Your task to perform on an android device: turn on improve location accuracy Image 0: 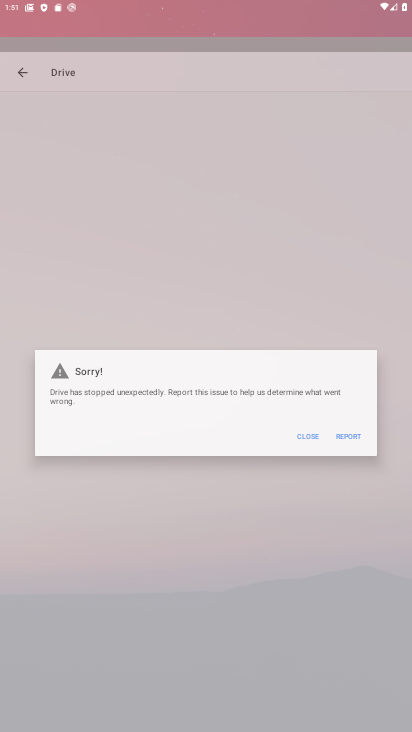
Step 0: click (212, 67)
Your task to perform on an android device: turn on improve location accuracy Image 1: 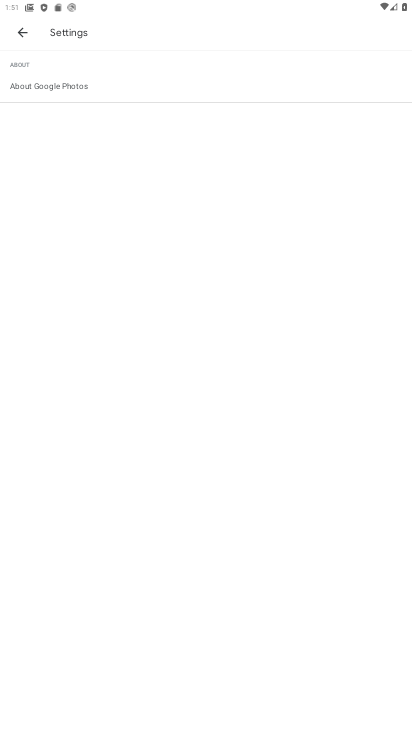
Step 1: press home button
Your task to perform on an android device: turn on improve location accuracy Image 2: 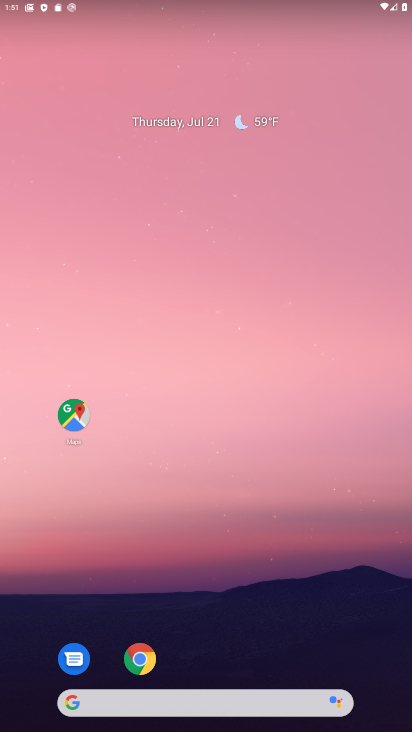
Step 2: drag from (260, 611) to (121, 101)
Your task to perform on an android device: turn on improve location accuracy Image 3: 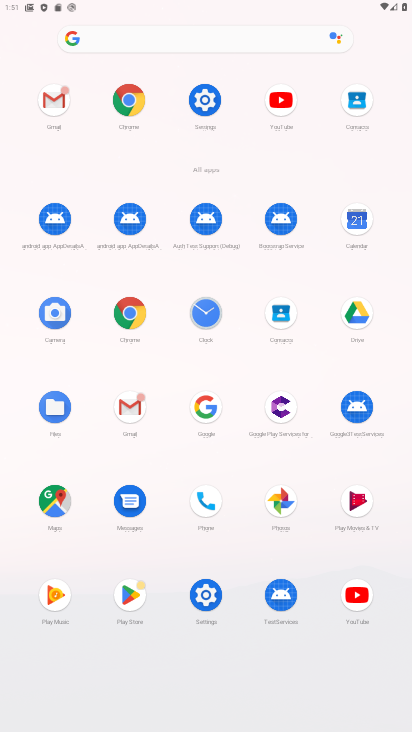
Step 3: click (191, 98)
Your task to perform on an android device: turn on improve location accuracy Image 4: 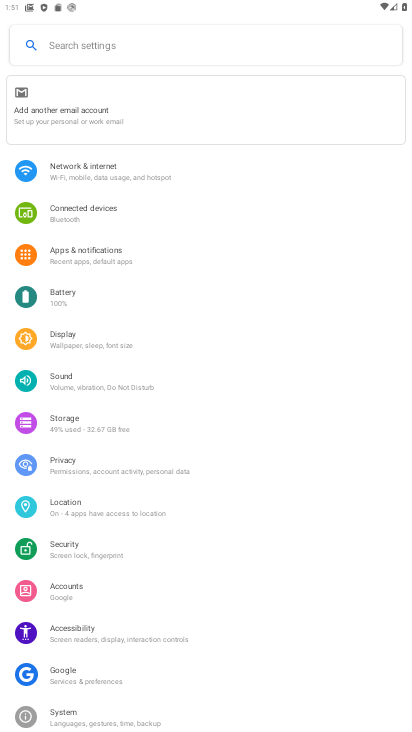
Step 4: click (87, 505)
Your task to perform on an android device: turn on improve location accuracy Image 5: 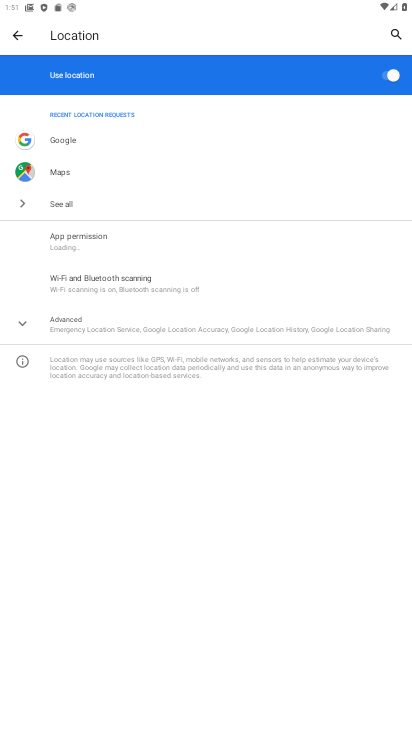
Step 5: click (95, 324)
Your task to perform on an android device: turn on improve location accuracy Image 6: 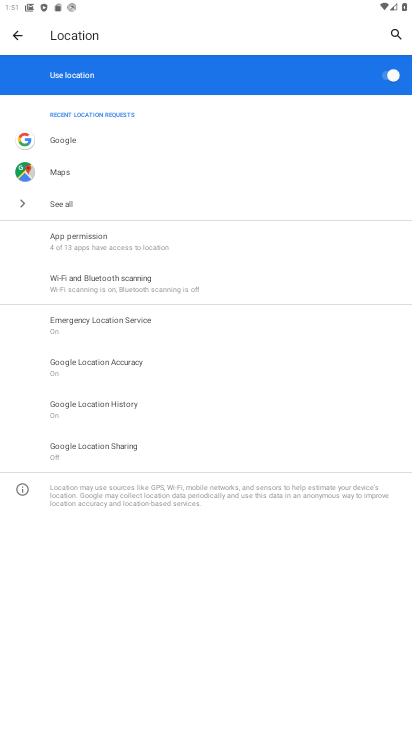
Step 6: click (105, 359)
Your task to perform on an android device: turn on improve location accuracy Image 7: 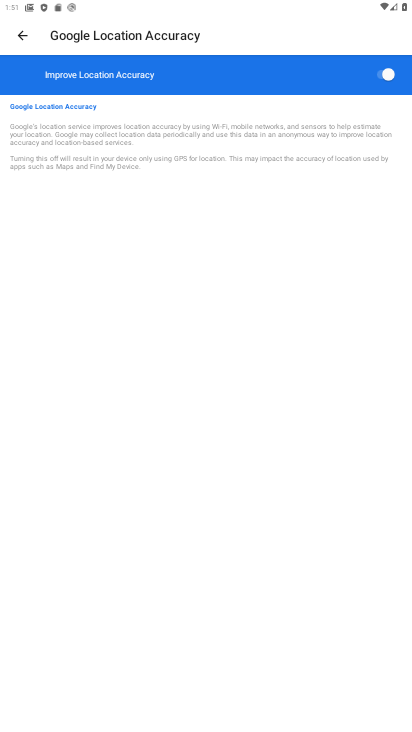
Step 7: task complete